Your task to perform on an android device: turn on notifications settings in the gmail app Image 0: 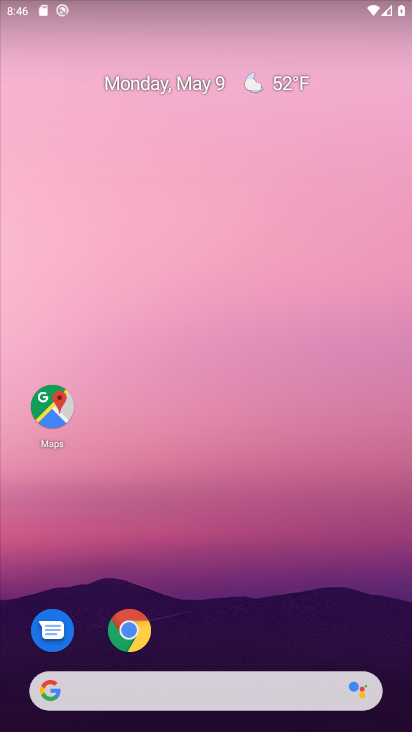
Step 0: drag from (219, 637) to (248, 39)
Your task to perform on an android device: turn on notifications settings in the gmail app Image 1: 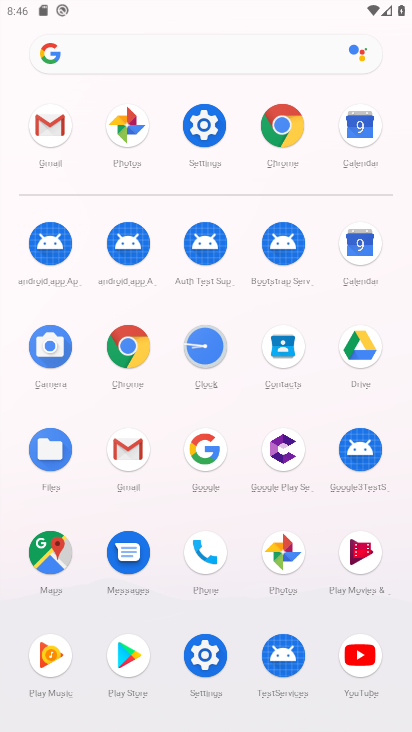
Step 1: click (132, 442)
Your task to perform on an android device: turn on notifications settings in the gmail app Image 2: 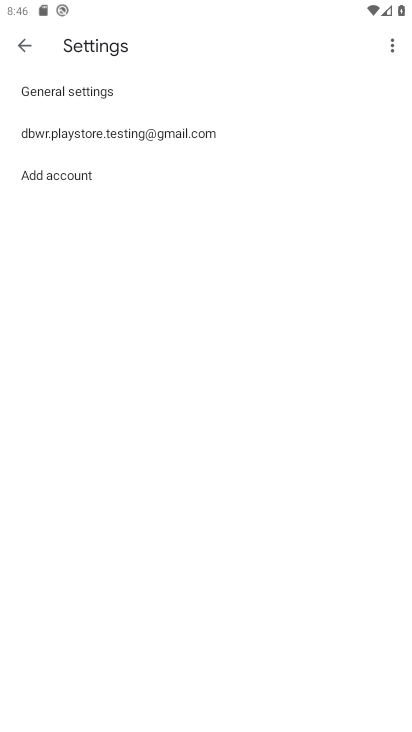
Step 2: click (86, 89)
Your task to perform on an android device: turn on notifications settings in the gmail app Image 3: 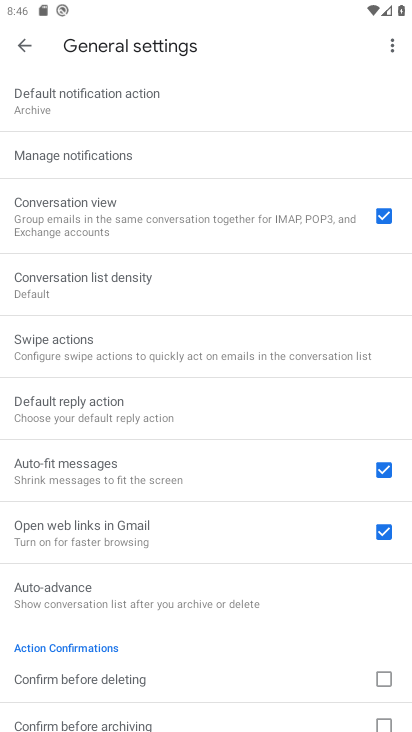
Step 3: click (92, 146)
Your task to perform on an android device: turn on notifications settings in the gmail app Image 4: 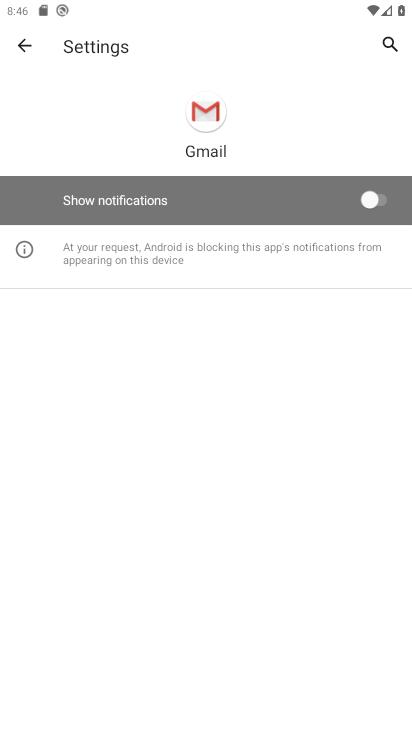
Step 4: click (379, 209)
Your task to perform on an android device: turn on notifications settings in the gmail app Image 5: 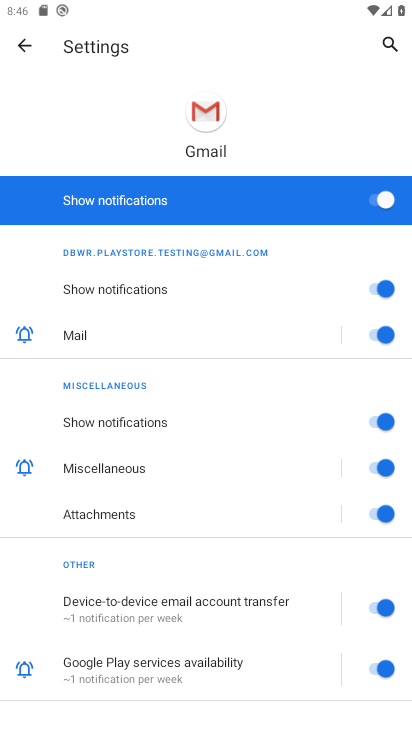
Step 5: task complete